Your task to perform on an android device: Go to wifi settings Image 0: 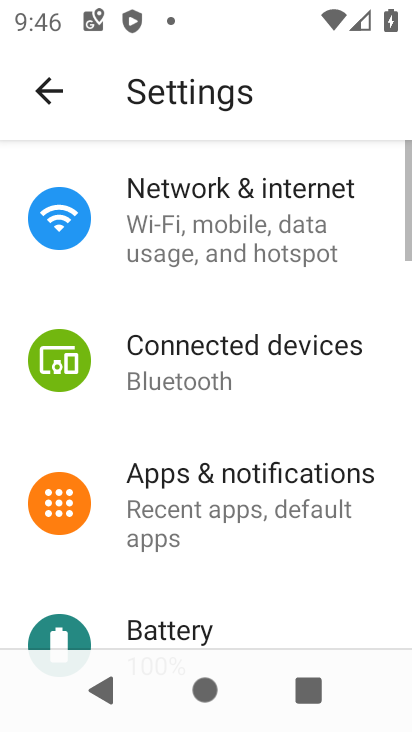
Step 0: click (273, 200)
Your task to perform on an android device: Go to wifi settings Image 1: 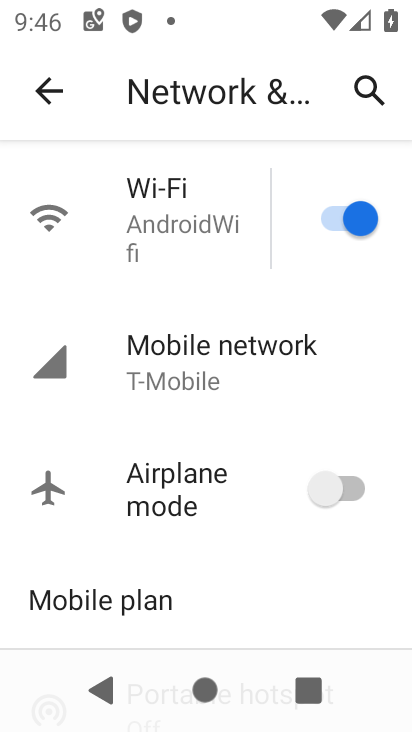
Step 1: click (181, 225)
Your task to perform on an android device: Go to wifi settings Image 2: 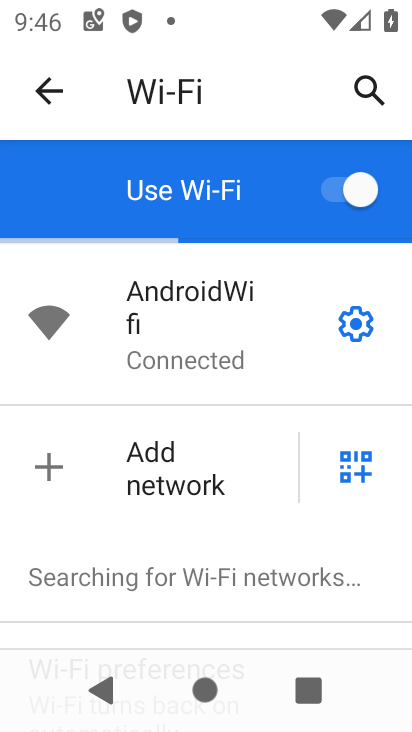
Step 2: click (356, 326)
Your task to perform on an android device: Go to wifi settings Image 3: 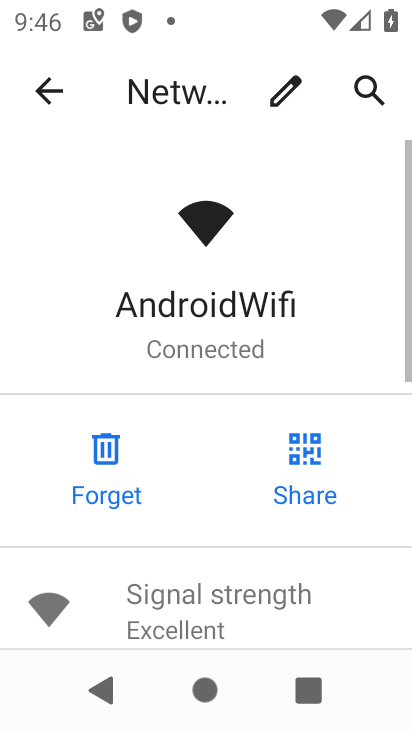
Step 3: drag from (225, 621) to (285, 240)
Your task to perform on an android device: Go to wifi settings Image 4: 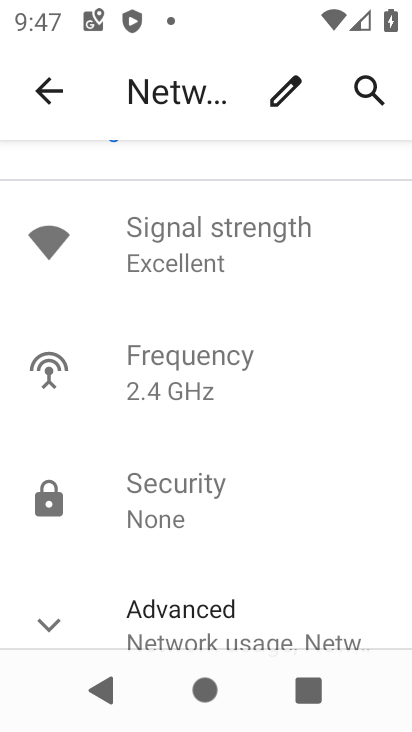
Step 4: drag from (309, 545) to (344, 316)
Your task to perform on an android device: Go to wifi settings Image 5: 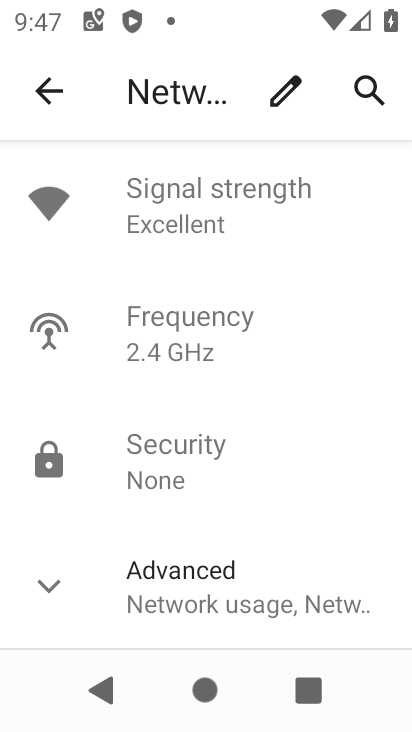
Step 5: click (57, 585)
Your task to perform on an android device: Go to wifi settings Image 6: 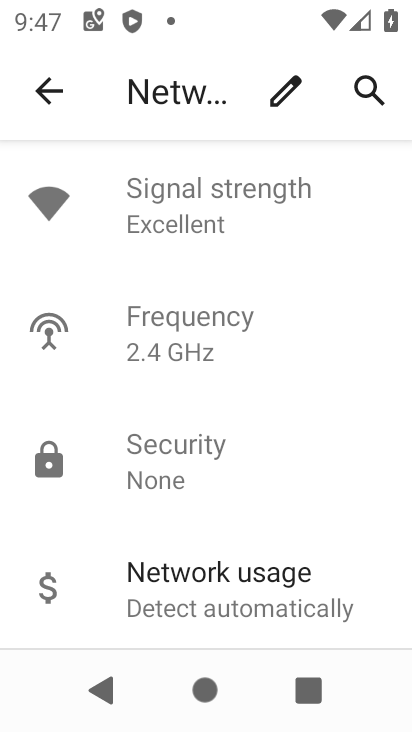
Step 6: task complete